Your task to perform on an android device: change the clock display to analog Image 0: 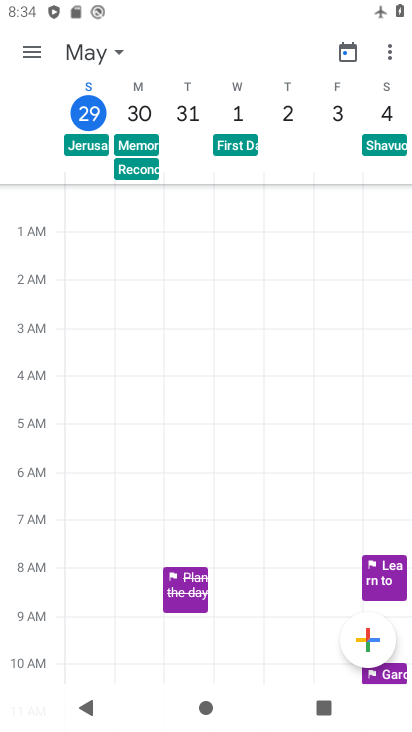
Step 0: press home button
Your task to perform on an android device: change the clock display to analog Image 1: 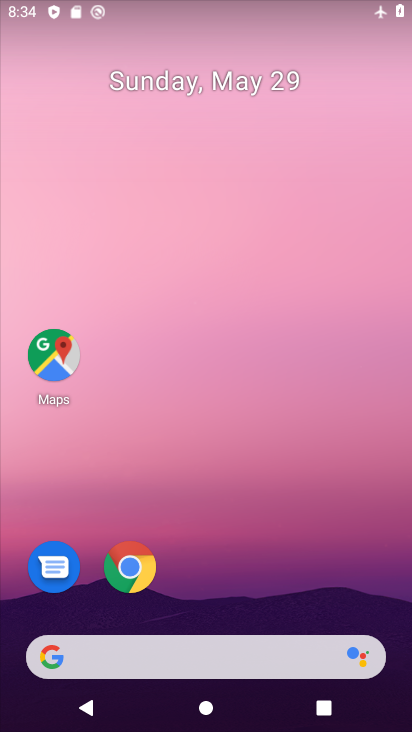
Step 1: drag from (388, 610) to (323, 163)
Your task to perform on an android device: change the clock display to analog Image 2: 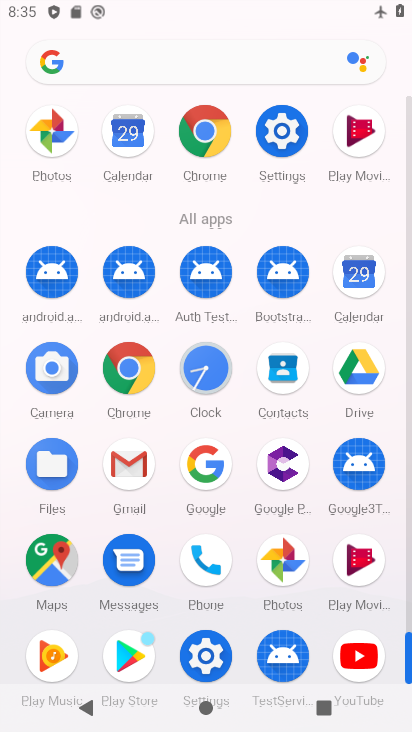
Step 2: click (204, 362)
Your task to perform on an android device: change the clock display to analog Image 3: 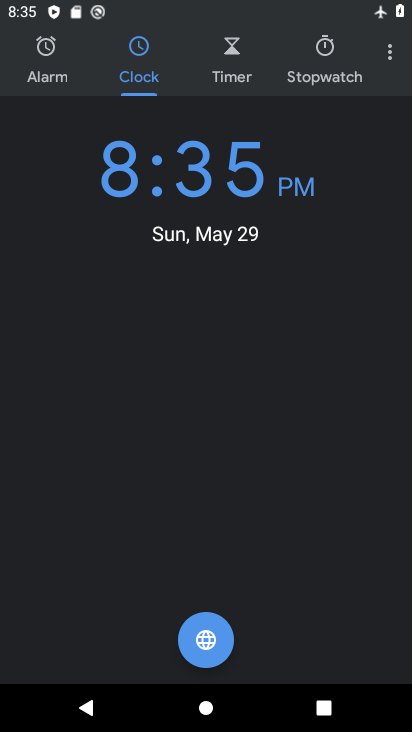
Step 3: click (391, 59)
Your task to perform on an android device: change the clock display to analog Image 4: 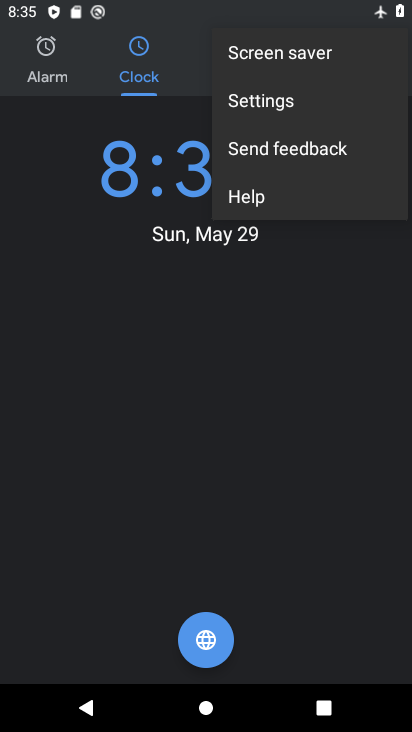
Step 4: click (241, 92)
Your task to perform on an android device: change the clock display to analog Image 5: 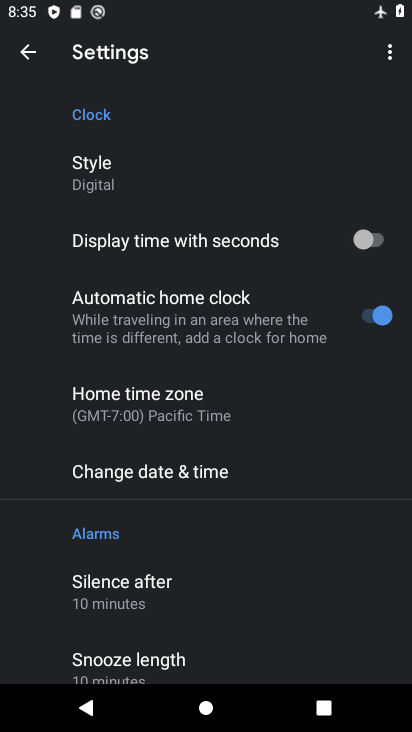
Step 5: click (84, 169)
Your task to perform on an android device: change the clock display to analog Image 6: 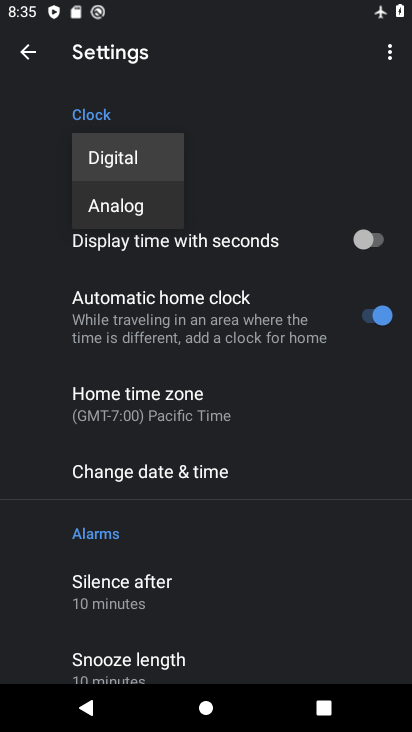
Step 6: click (117, 204)
Your task to perform on an android device: change the clock display to analog Image 7: 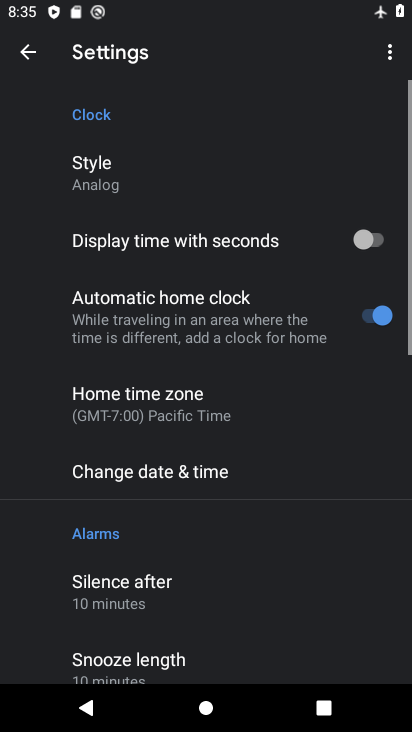
Step 7: task complete